Your task to perform on an android device: Open calendar and show me the first week of next month Image 0: 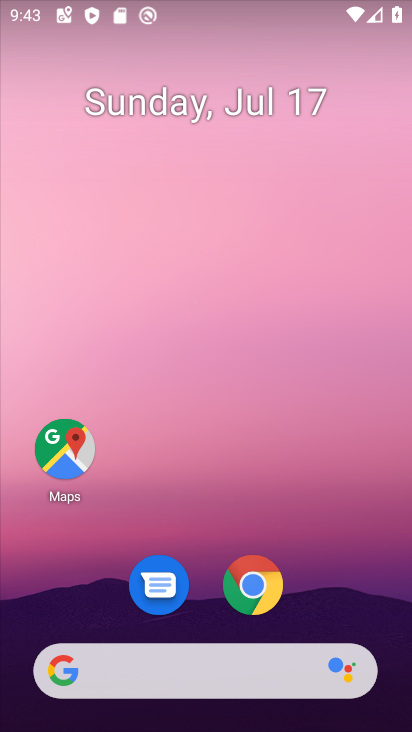
Step 0: drag from (356, 527) to (307, 41)
Your task to perform on an android device: Open calendar and show me the first week of next month Image 1: 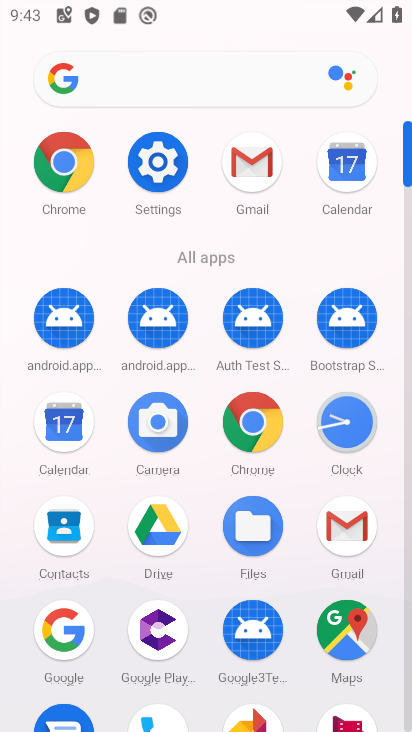
Step 1: click (344, 171)
Your task to perform on an android device: Open calendar and show me the first week of next month Image 2: 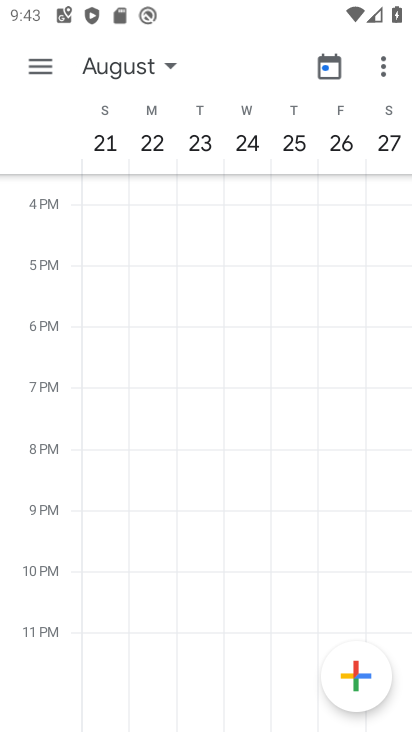
Step 2: task complete